Your task to perform on an android device: check storage Image 0: 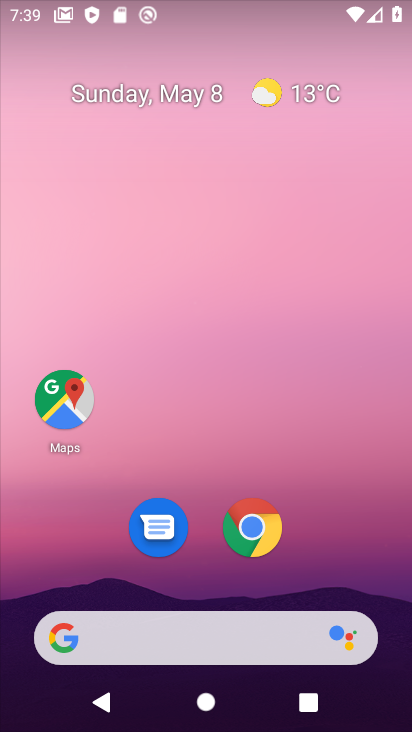
Step 0: drag from (351, 516) to (412, 150)
Your task to perform on an android device: check storage Image 1: 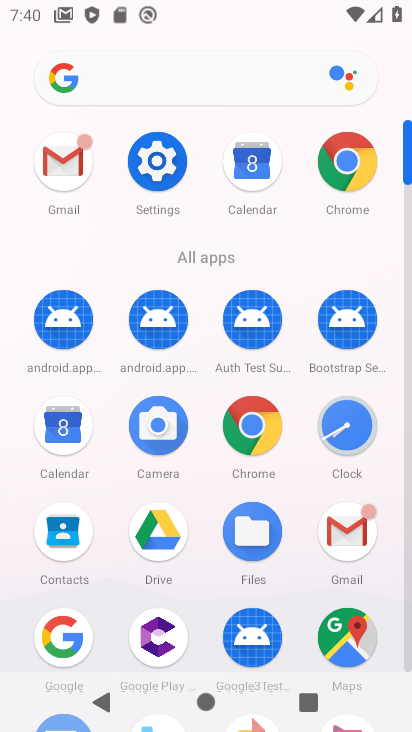
Step 1: click (150, 151)
Your task to perform on an android device: check storage Image 2: 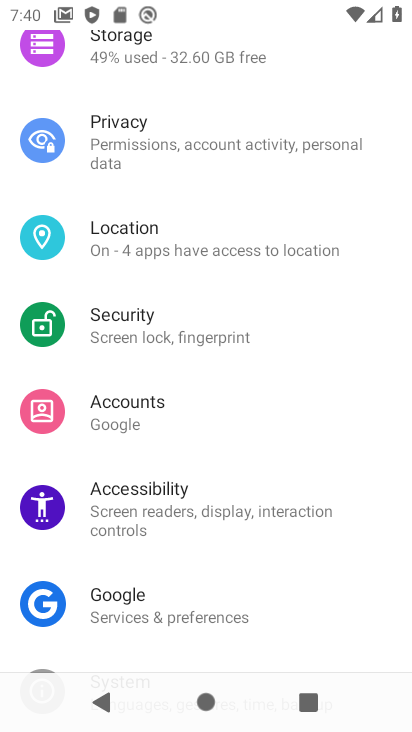
Step 2: drag from (155, 562) to (187, 217)
Your task to perform on an android device: check storage Image 3: 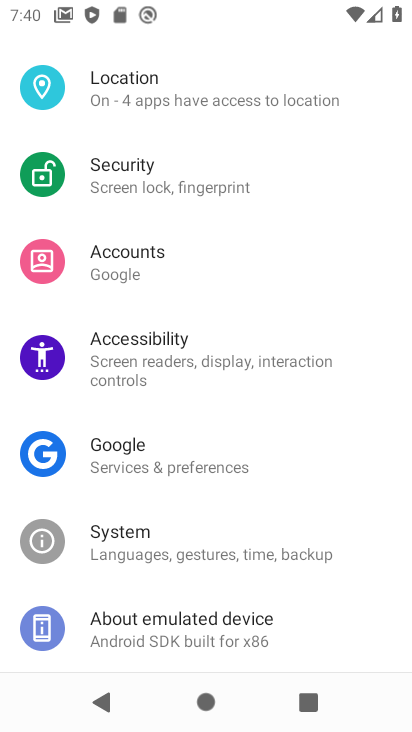
Step 3: drag from (206, 586) to (271, 208)
Your task to perform on an android device: check storage Image 4: 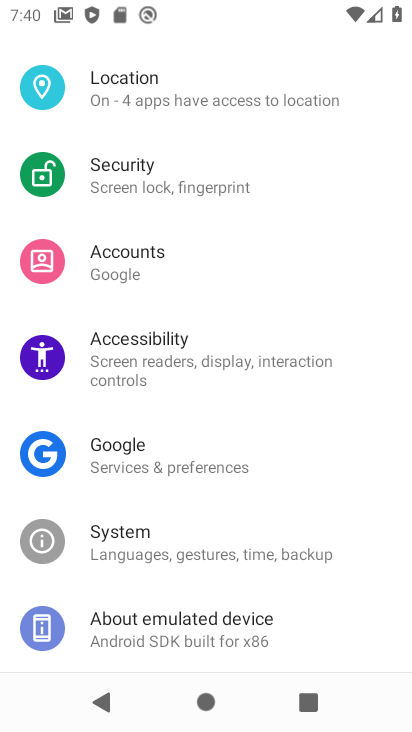
Step 4: drag from (269, 225) to (219, 549)
Your task to perform on an android device: check storage Image 5: 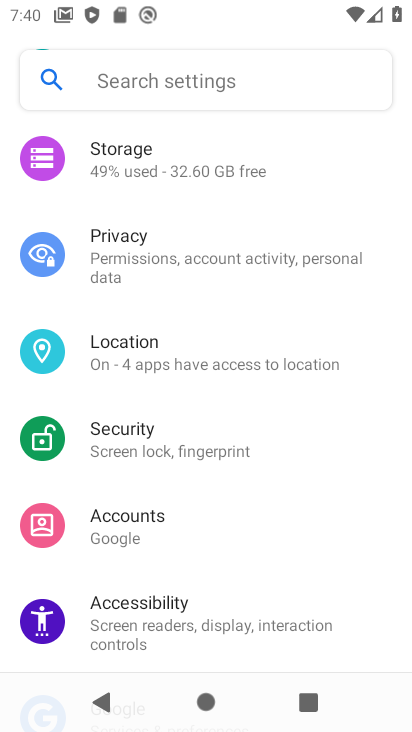
Step 5: drag from (216, 198) to (224, 516)
Your task to perform on an android device: check storage Image 6: 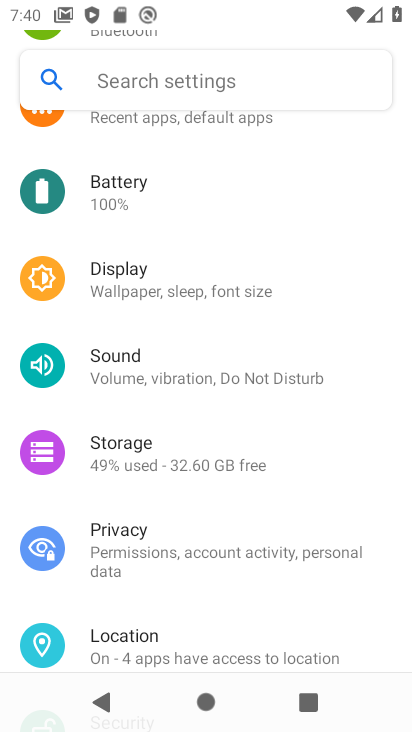
Step 6: click (193, 465)
Your task to perform on an android device: check storage Image 7: 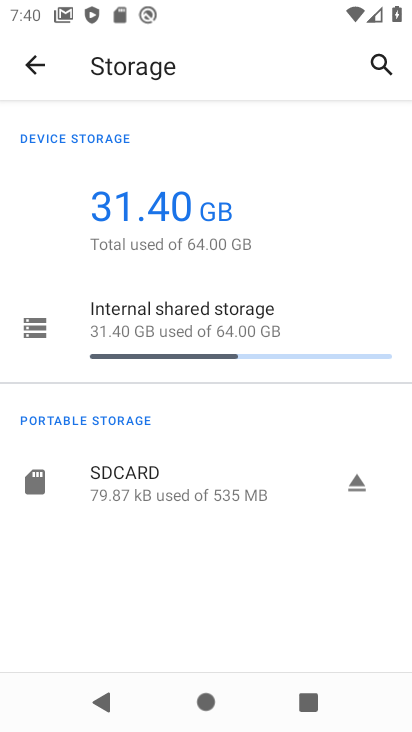
Step 7: click (145, 360)
Your task to perform on an android device: check storage Image 8: 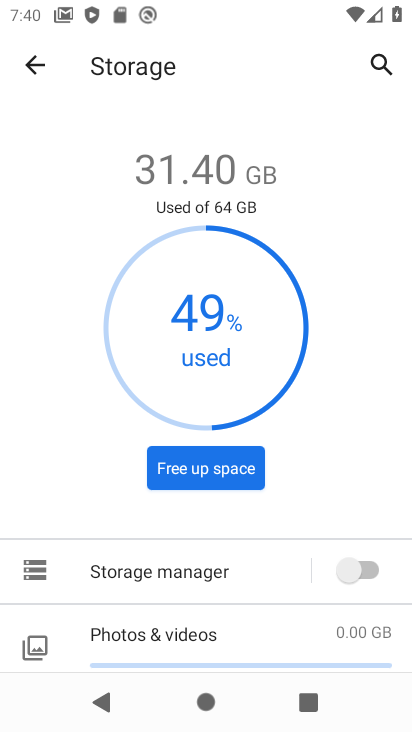
Step 8: task complete